Your task to perform on an android device: Open Youtube and go to "Your channel" Image 0: 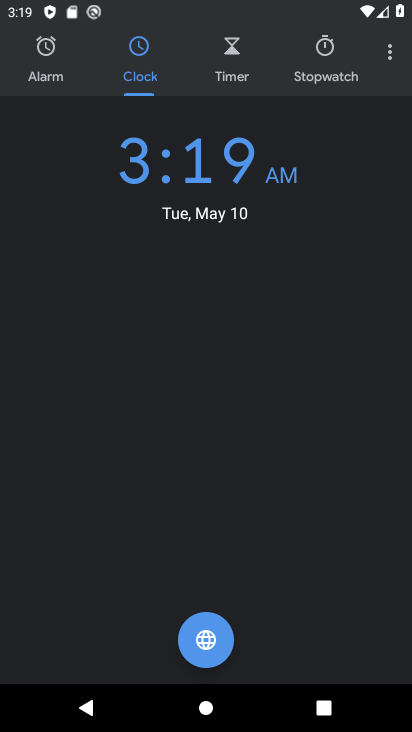
Step 0: press home button
Your task to perform on an android device: Open Youtube and go to "Your channel" Image 1: 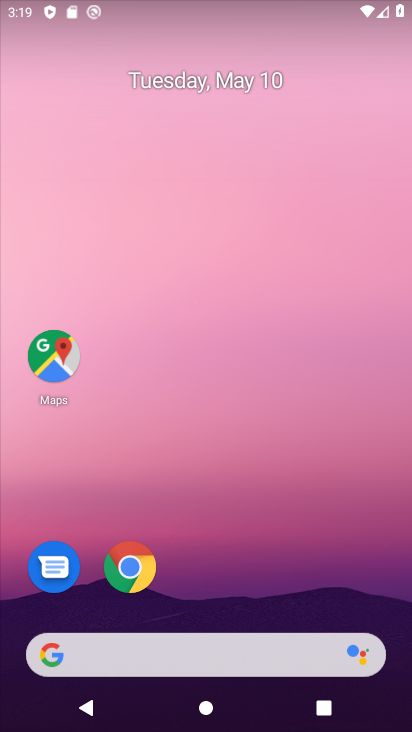
Step 1: drag from (227, 577) to (241, 64)
Your task to perform on an android device: Open Youtube and go to "Your channel" Image 2: 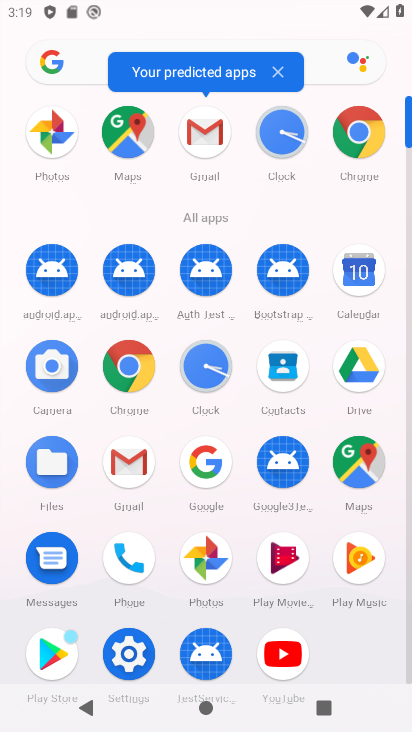
Step 2: click (285, 651)
Your task to perform on an android device: Open Youtube and go to "Your channel" Image 3: 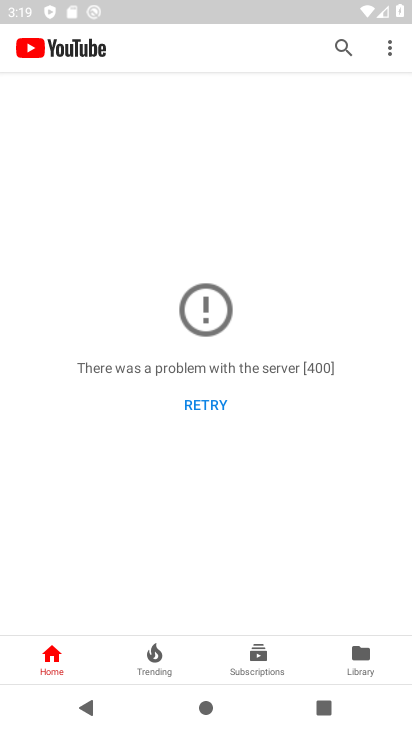
Step 3: task complete